Your task to perform on an android device: Open the stopwatch Image 0: 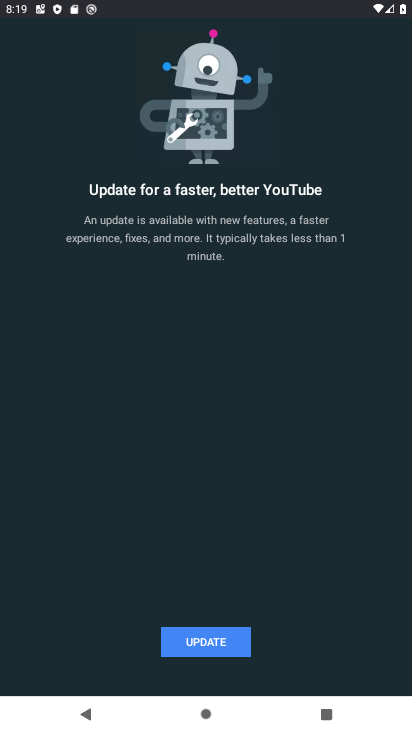
Step 0: press home button
Your task to perform on an android device: Open the stopwatch Image 1: 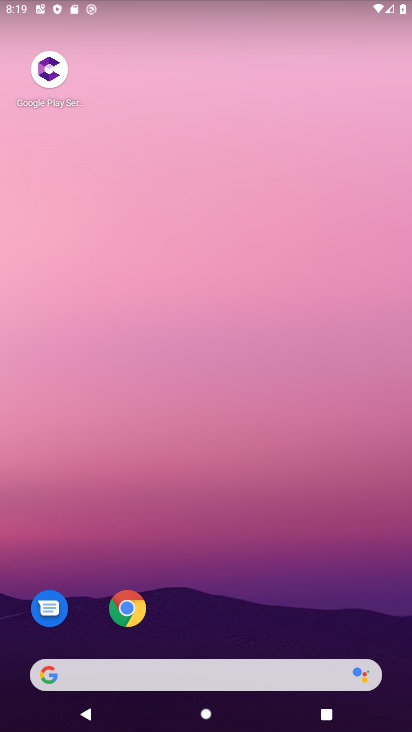
Step 1: drag from (247, 625) to (257, 167)
Your task to perform on an android device: Open the stopwatch Image 2: 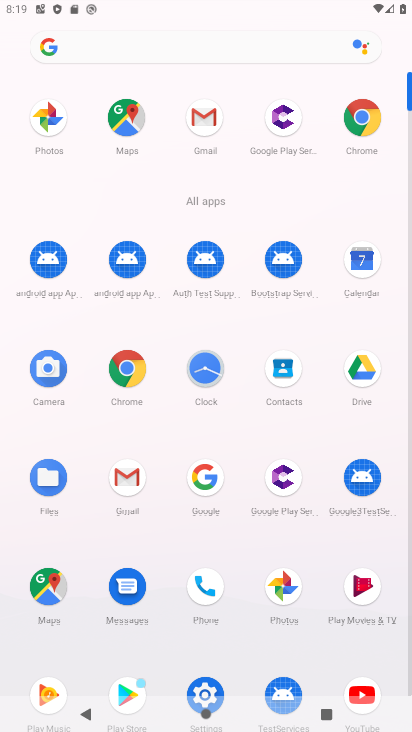
Step 2: click (206, 370)
Your task to perform on an android device: Open the stopwatch Image 3: 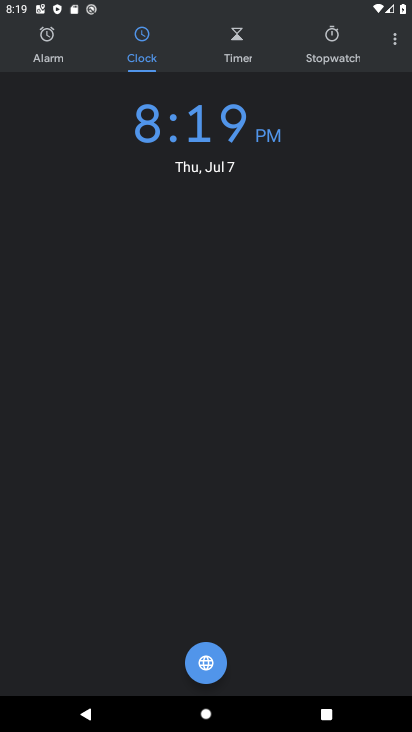
Step 3: click (334, 37)
Your task to perform on an android device: Open the stopwatch Image 4: 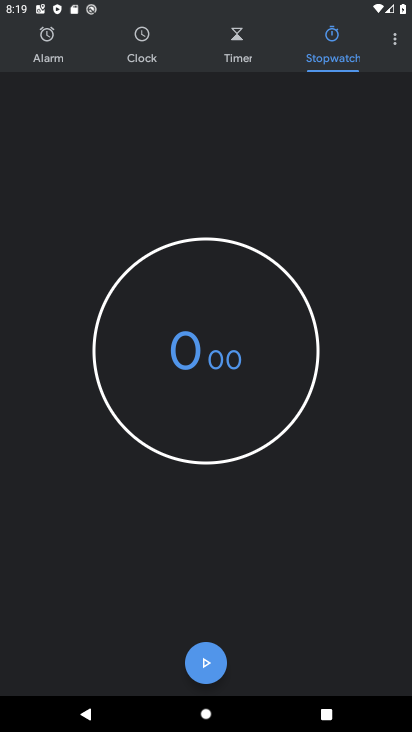
Step 4: task complete